Your task to perform on an android device: turn off airplane mode Image 0: 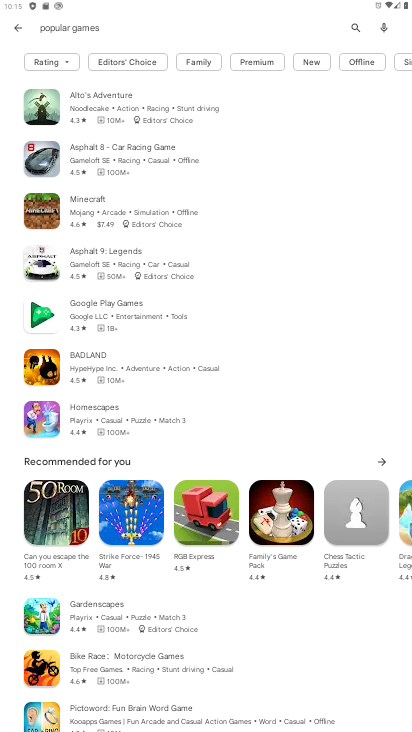
Step 0: press home button
Your task to perform on an android device: turn off airplane mode Image 1: 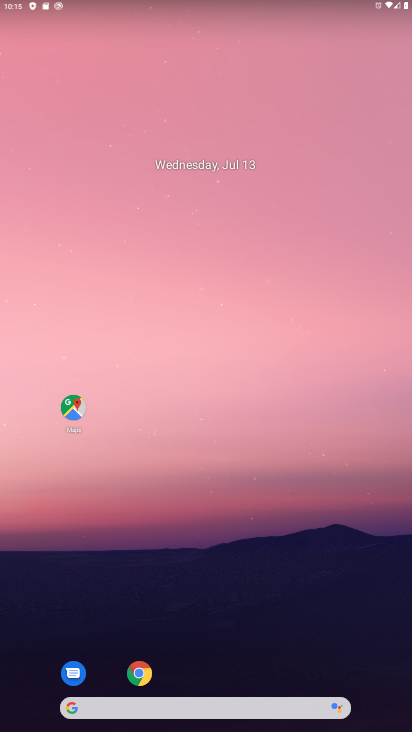
Step 1: drag from (195, 685) to (195, 226)
Your task to perform on an android device: turn off airplane mode Image 2: 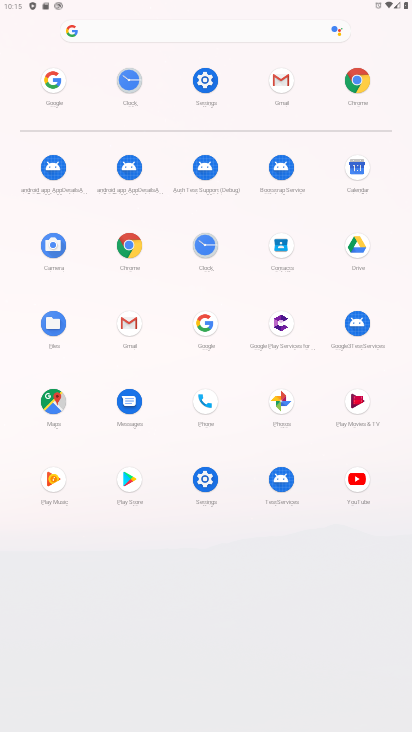
Step 2: click (201, 76)
Your task to perform on an android device: turn off airplane mode Image 3: 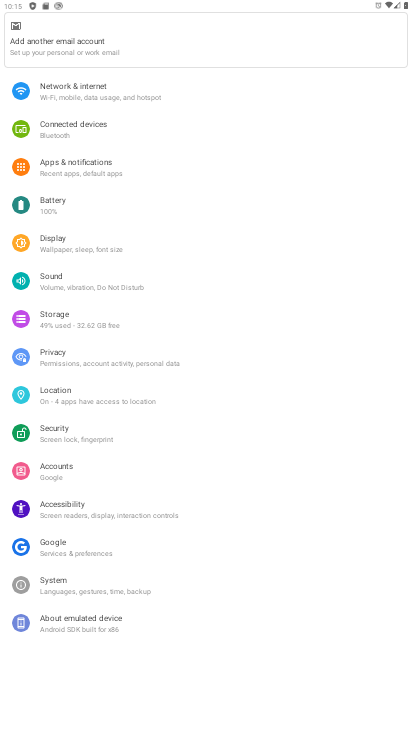
Step 3: click (89, 88)
Your task to perform on an android device: turn off airplane mode Image 4: 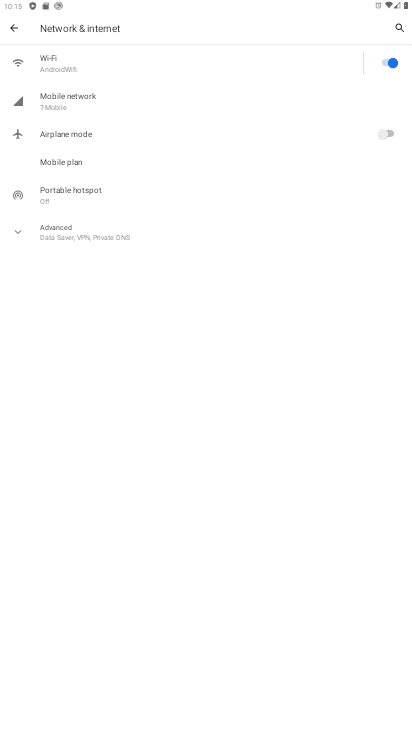
Step 4: click (390, 135)
Your task to perform on an android device: turn off airplane mode Image 5: 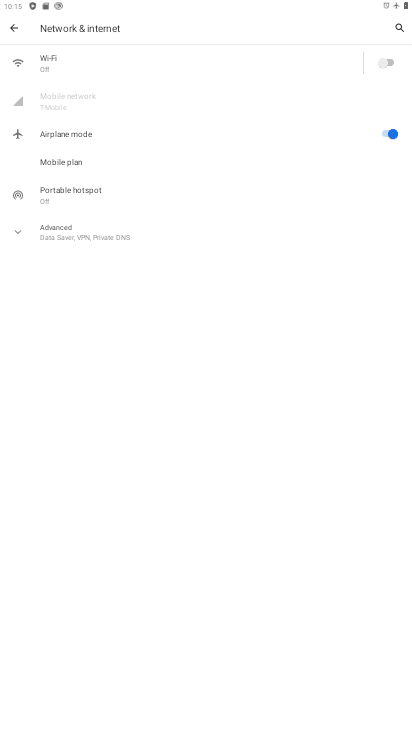
Step 5: click (383, 133)
Your task to perform on an android device: turn off airplane mode Image 6: 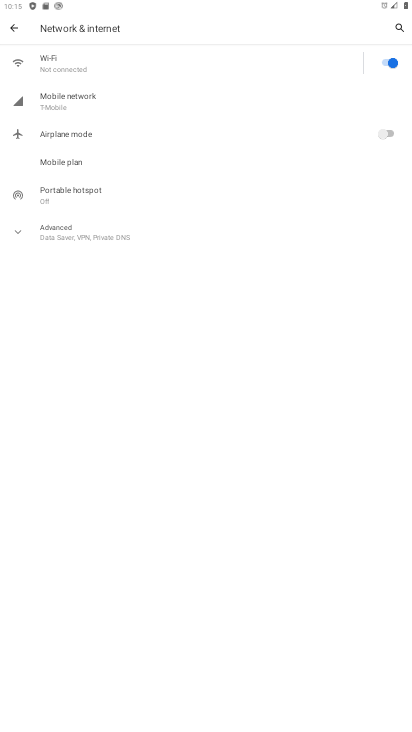
Step 6: task complete